Your task to perform on an android device: Go to Yahoo.com Image 0: 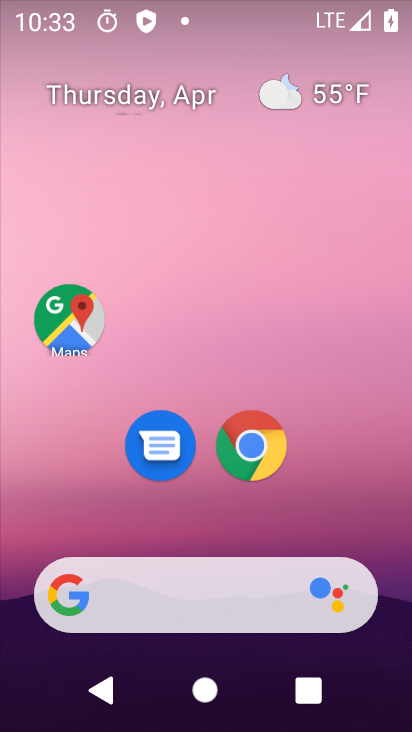
Step 0: click (256, 448)
Your task to perform on an android device: Go to Yahoo.com Image 1: 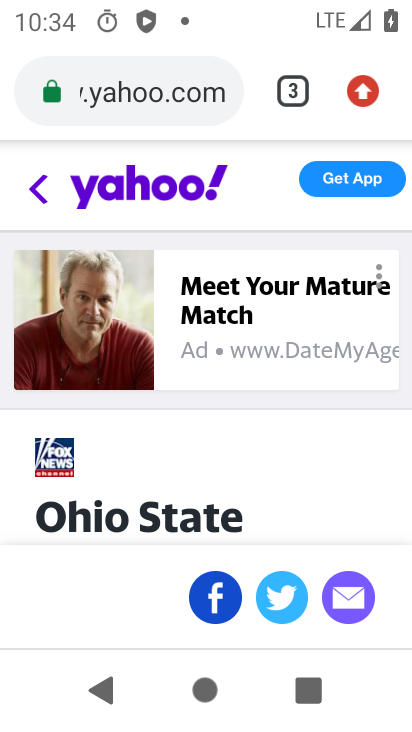
Step 1: task complete